Your task to perform on an android device: open app "ColorNote Notepad Notes" (install if not already installed) Image 0: 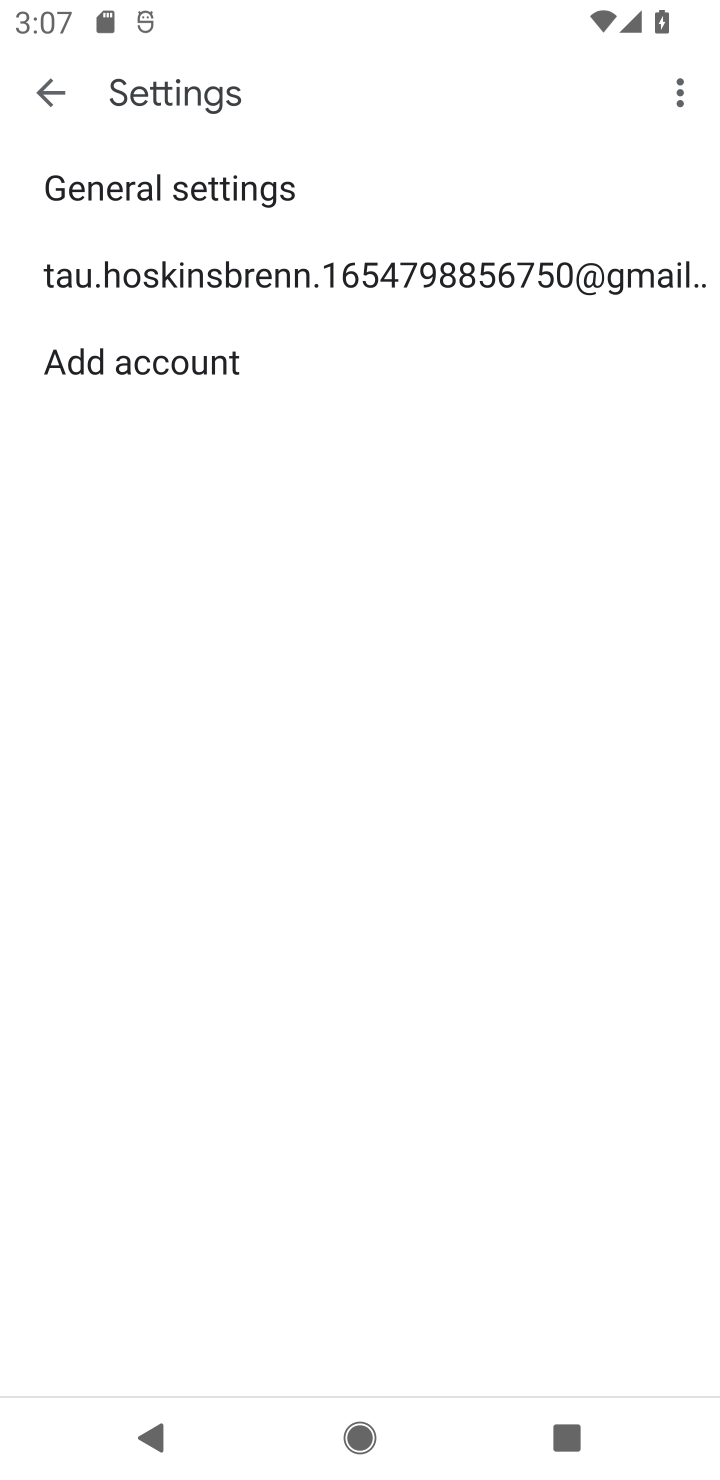
Step 0: press home button
Your task to perform on an android device: open app "ColorNote Notepad Notes" (install if not already installed) Image 1: 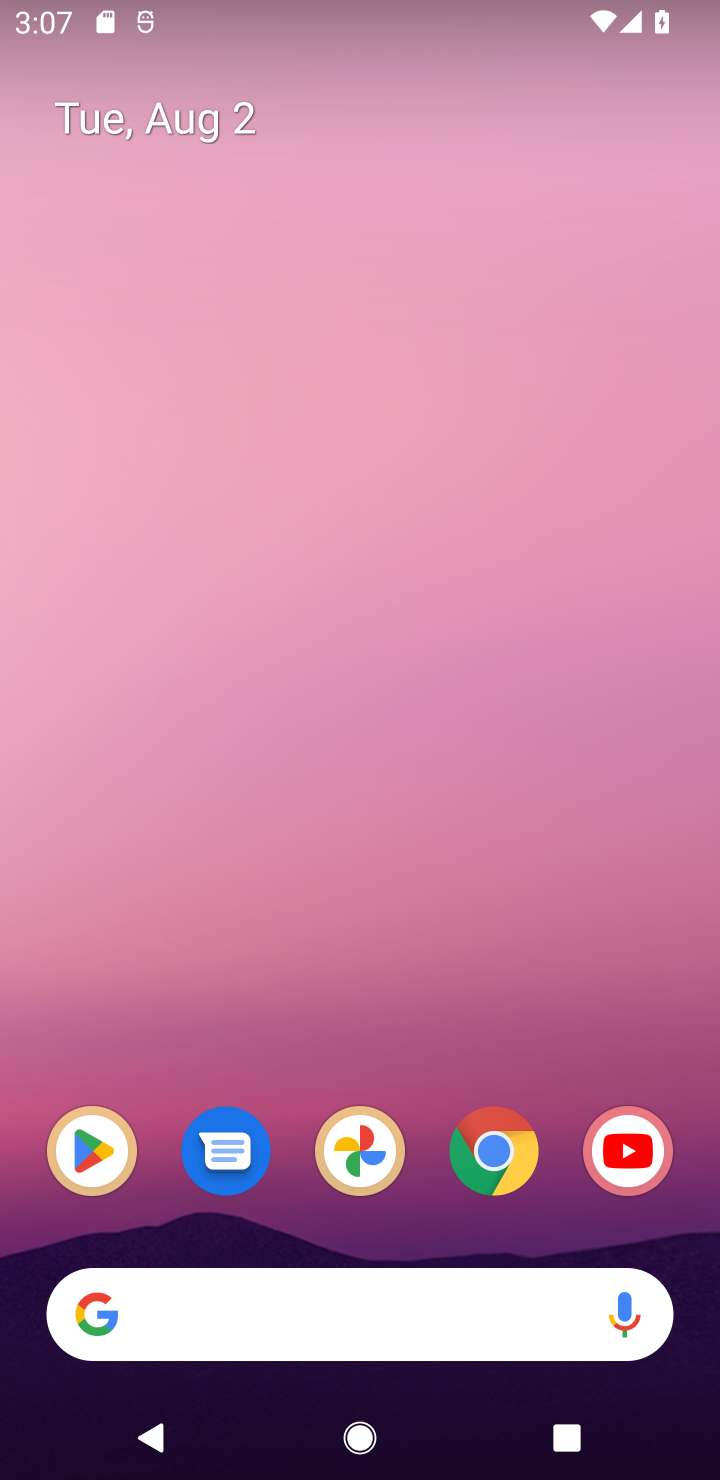
Step 1: click (102, 1139)
Your task to perform on an android device: open app "ColorNote Notepad Notes" (install if not already installed) Image 2: 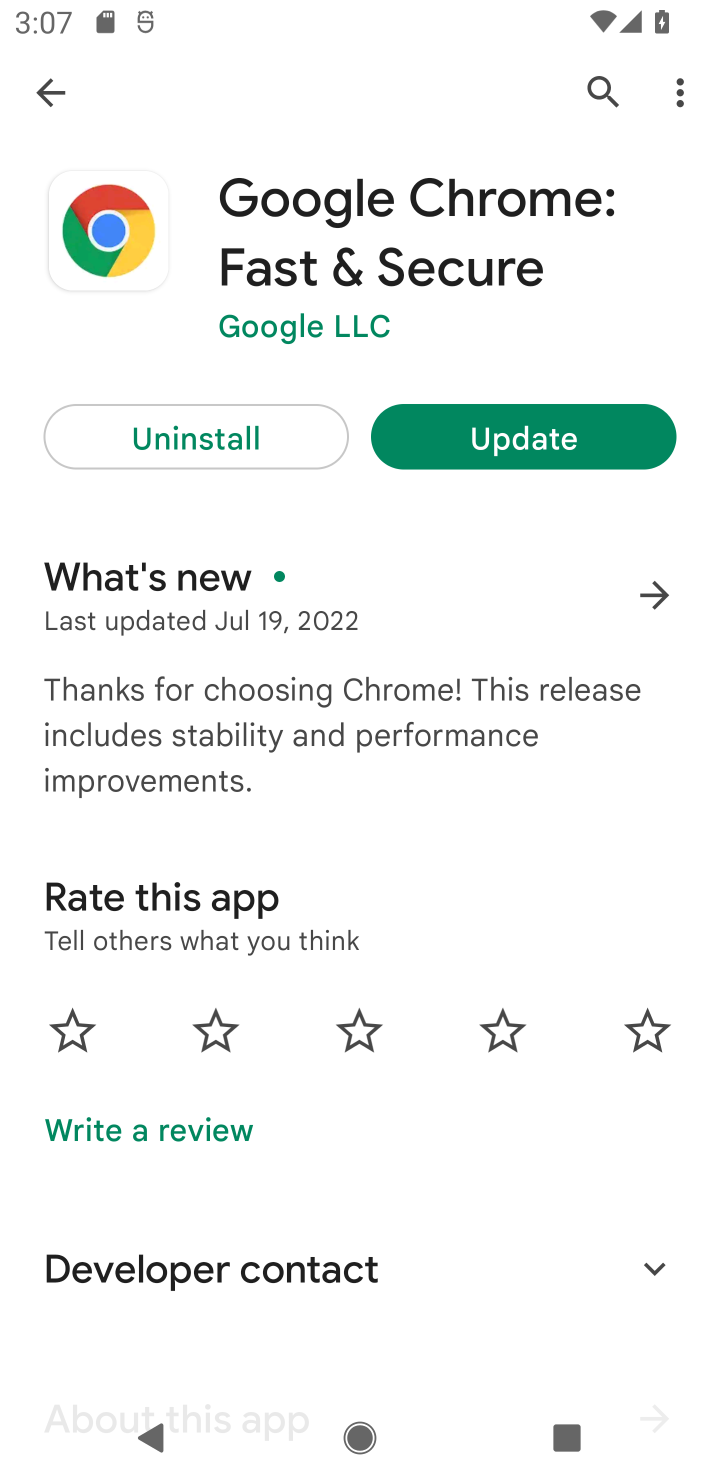
Step 2: click (577, 84)
Your task to perform on an android device: open app "ColorNote Notepad Notes" (install if not already installed) Image 3: 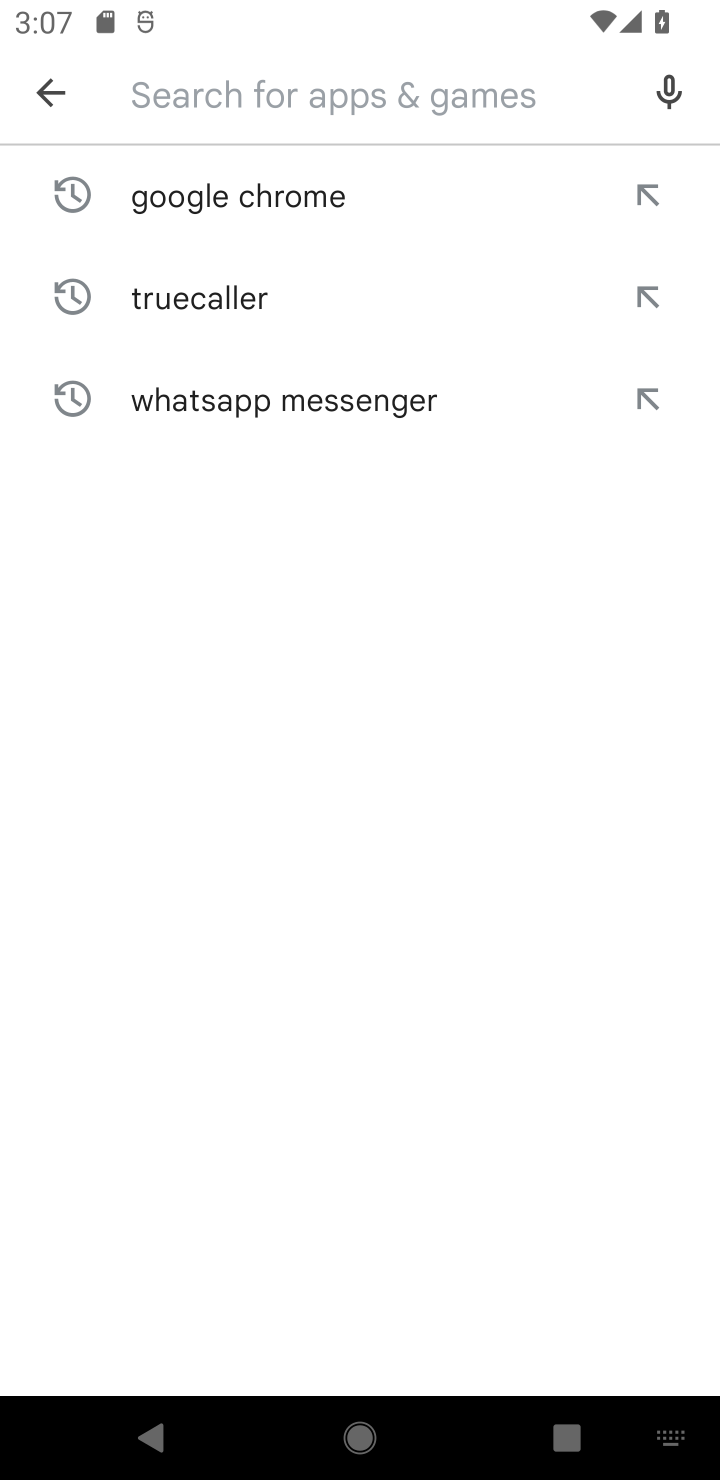
Step 3: type "colornote notepad notes"
Your task to perform on an android device: open app "ColorNote Notepad Notes" (install if not already installed) Image 4: 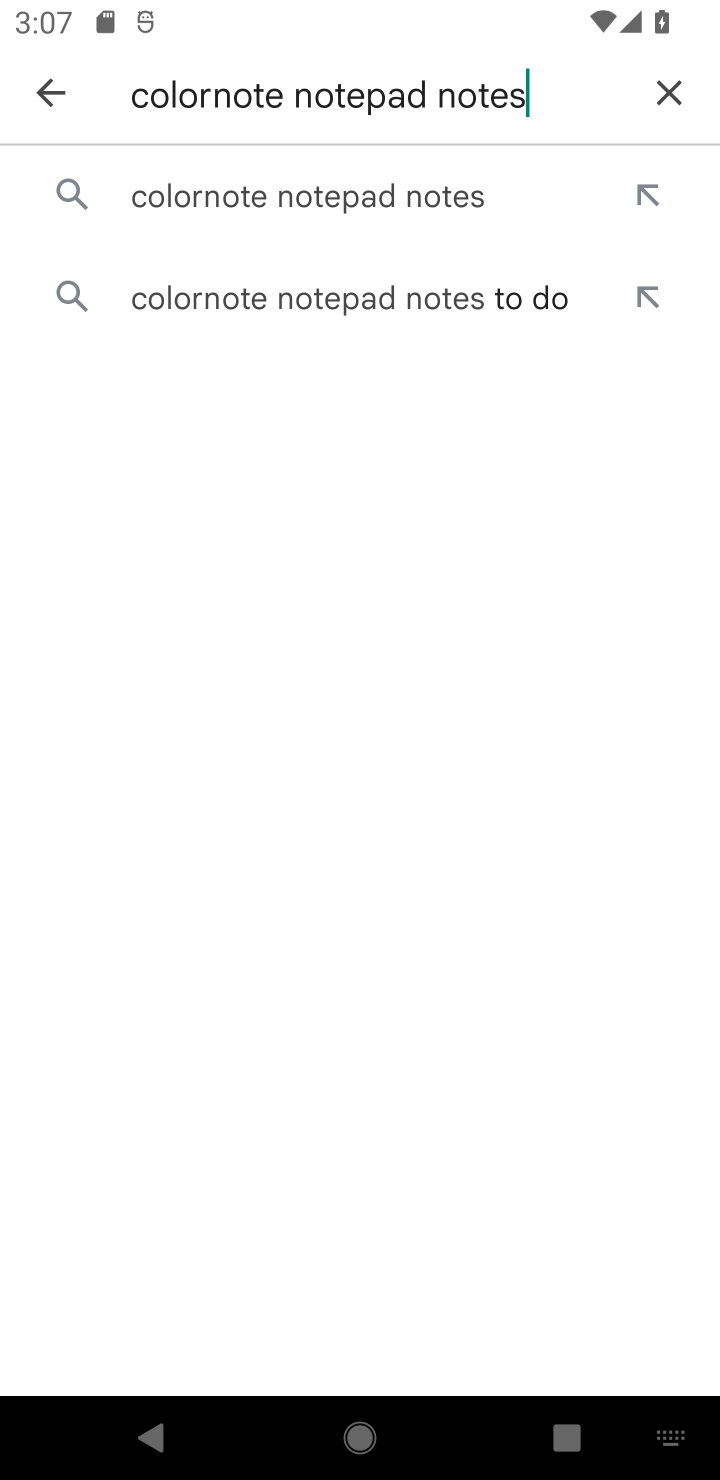
Step 4: click (287, 168)
Your task to perform on an android device: open app "ColorNote Notepad Notes" (install if not already installed) Image 5: 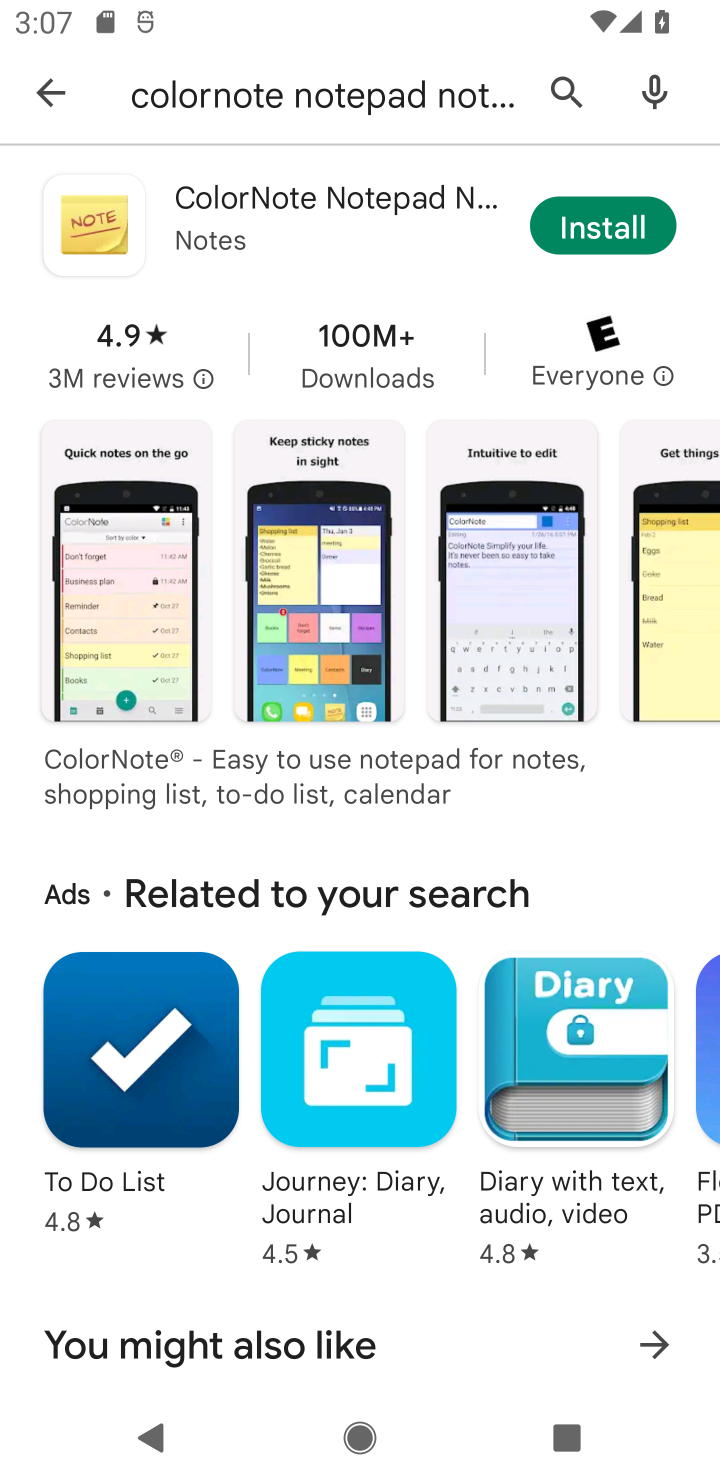
Step 5: click (306, 192)
Your task to perform on an android device: open app "ColorNote Notepad Notes" (install if not already installed) Image 6: 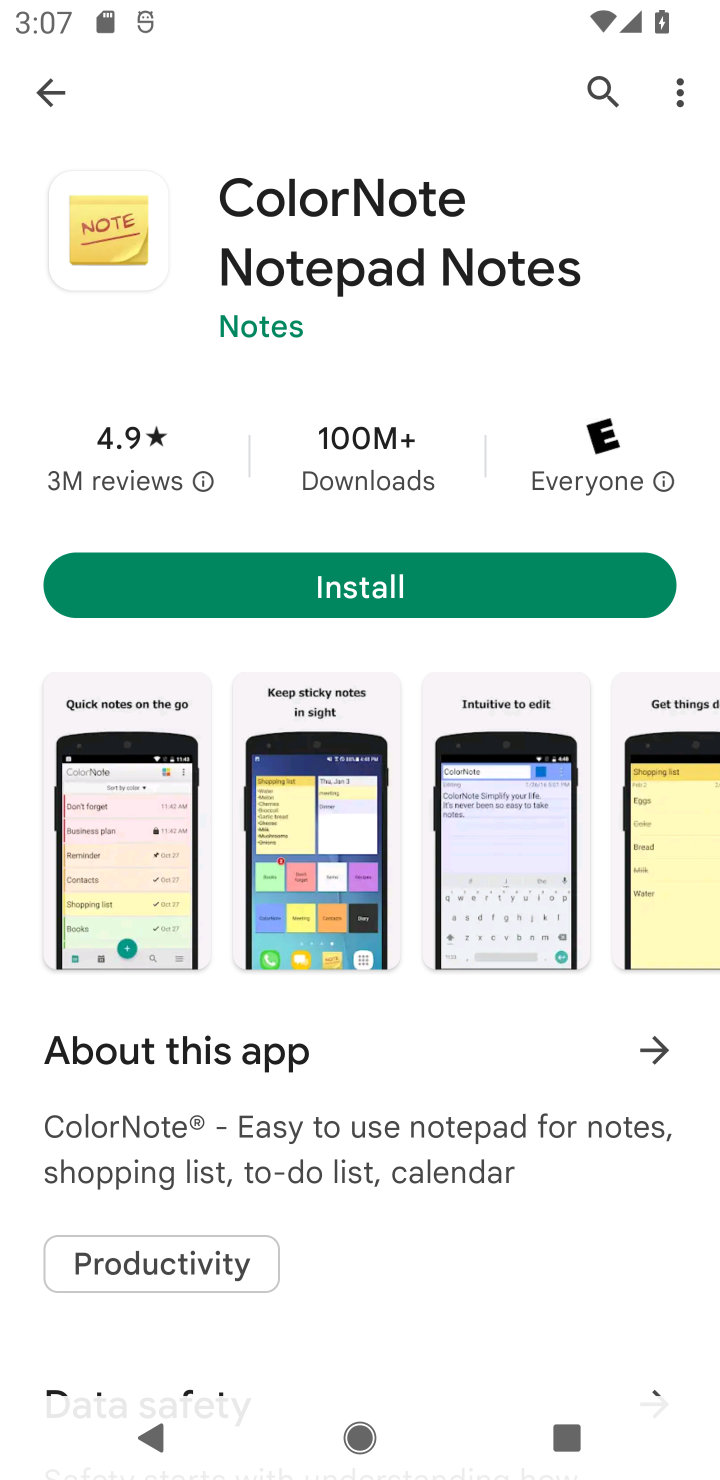
Step 6: click (263, 574)
Your task to perform on an android device: open app "ColorNote Notepad Notes" (install if not already installed) Image 7: 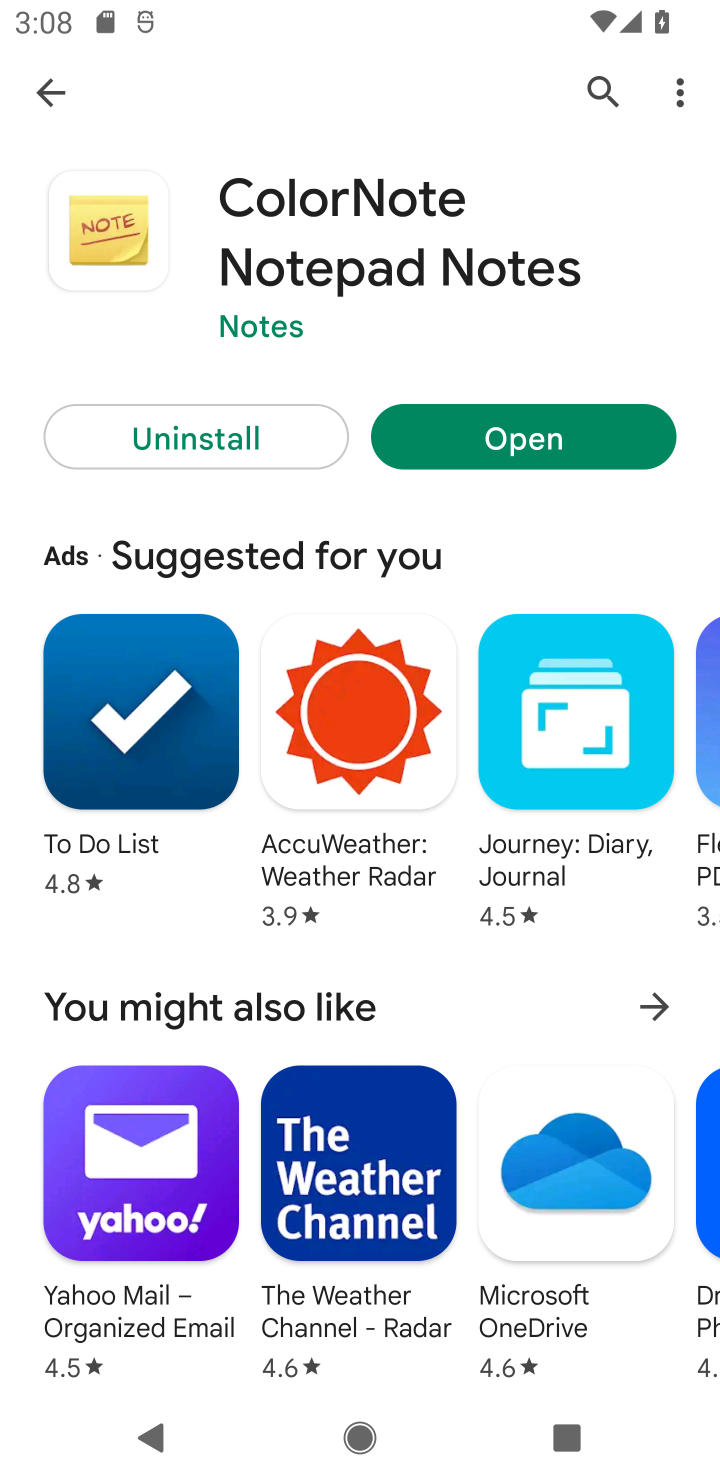
Step 7: click (587, 461)
Your task to perform on an android device: open app "ColorNote Notepad Notes" (install if not already installed) Image 8: 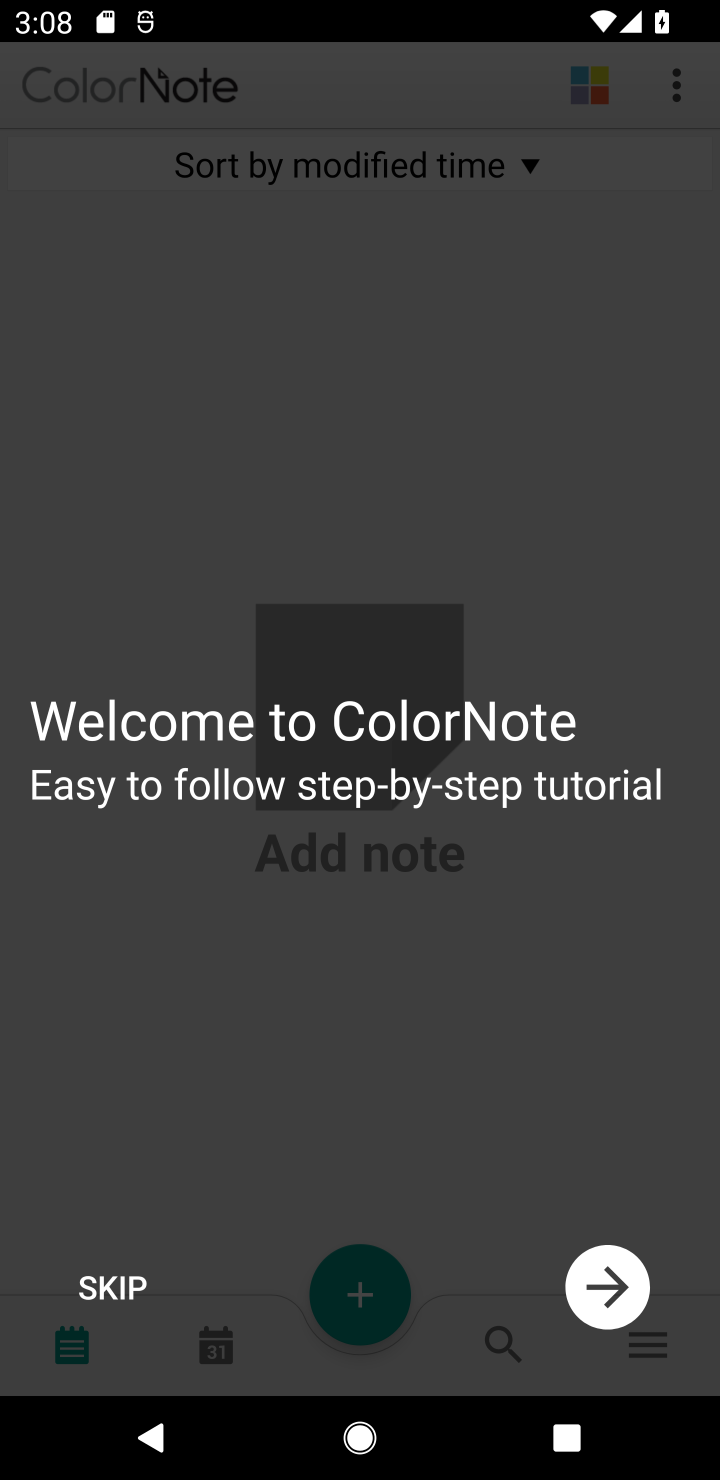
Step 8: task complete